Your task to perform on an android device: toggle translation in the chrome app Image 0: 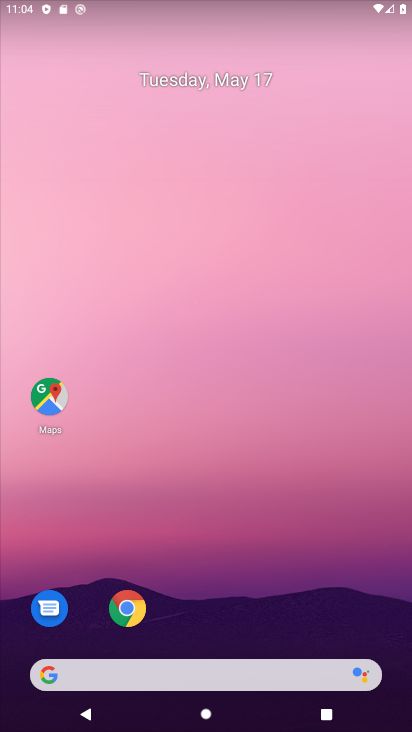
Step 0: click (122, 609)
Your task to perform on an android device: toggle translation in the chrome app Image 1: 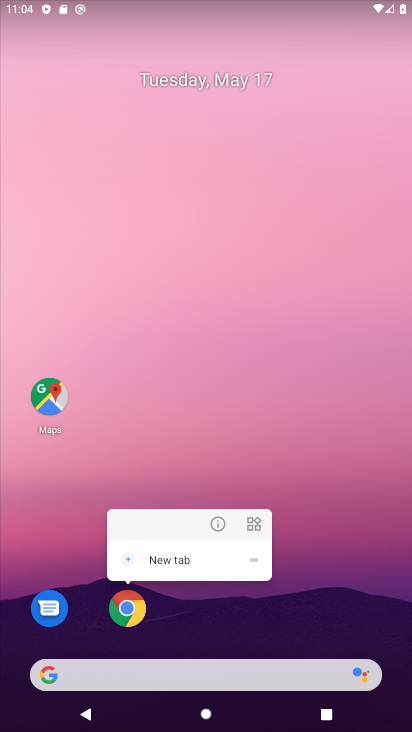
Step 1: click (127, 629)
Your task to perform on an android device: toggle translation in the chrome app Image 2: 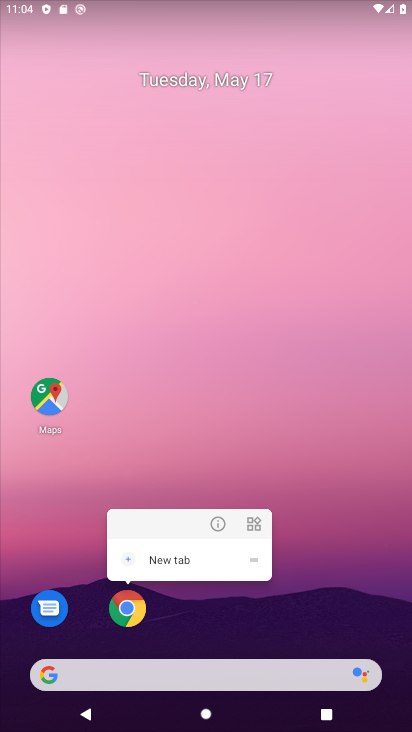
Step 2: click (131, 615)
Your task to perform on an android device: toggle translation in the chrome app Image 3: 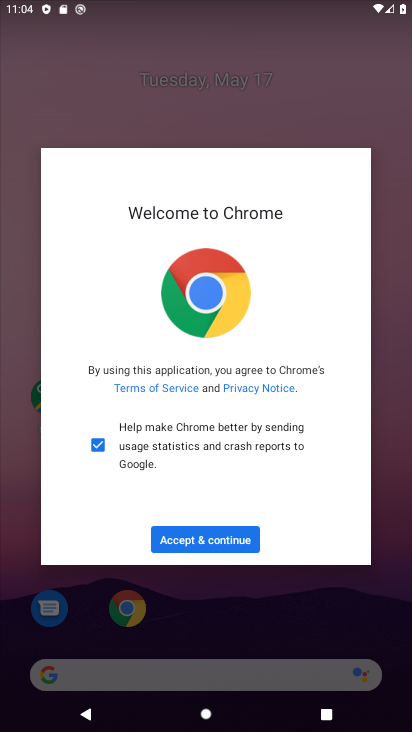
Step 3: click (246, 548)
Your task to perform on an android device: toggle translation in the chrome app Image 4: 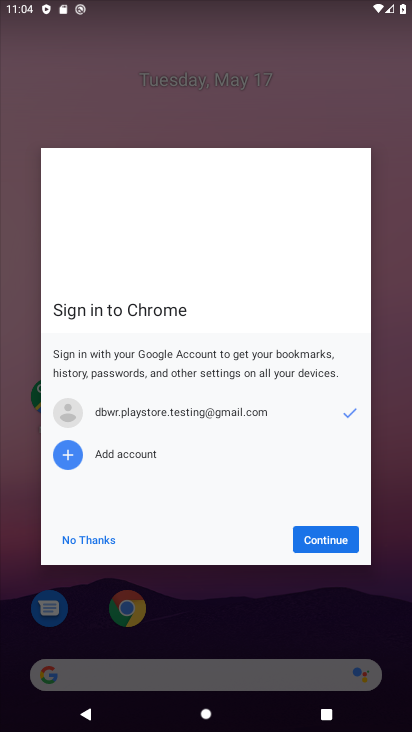
Step 4: click (330, 536)
Your task to perform on an android device: toggle translation in the chrome app Image 5: 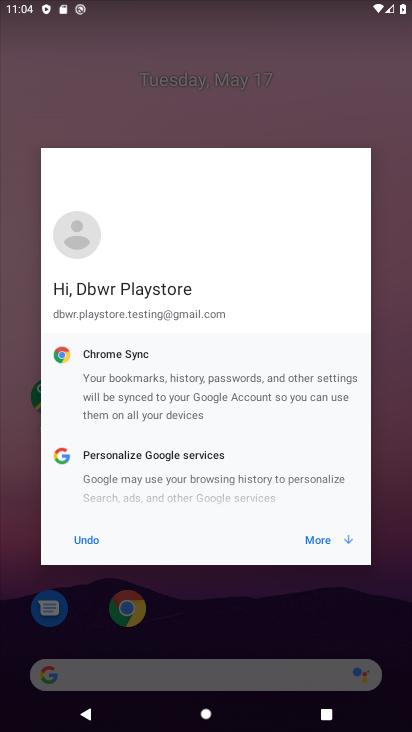
Step 5: click (323, 546)
Your task to perform on an android device: toggle translation in the chrome app Image 6: 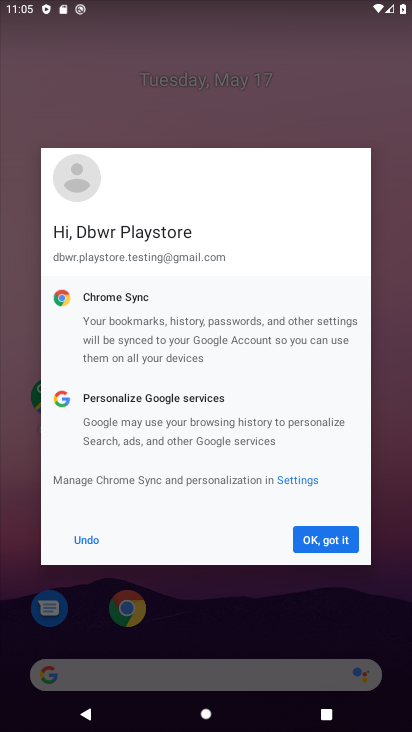
Step 6: click (323, 546)
Your task to perform on an android device: toggle translation in the chrome app Image 7: 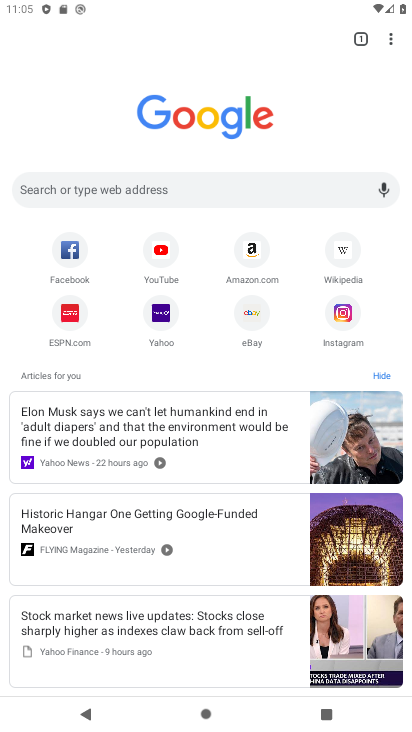
Step 7: drag from (397, 45) to (321, 310)
Your task to perform on an android device: toggle translation in the chrome app Image 8: 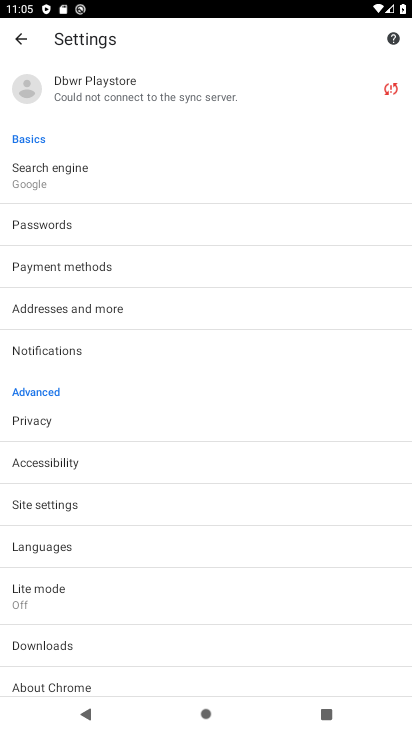
Step 8: drag from (149, 626) to (221, 350)
Your task to perform on an android device: toggle translation in the chrome app Image 9: 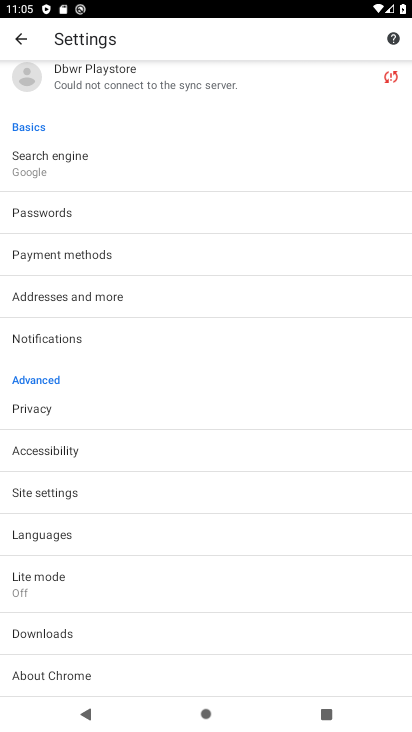
Step 9: click (93, 537)
Your task to perform on an android device: toggle translation in the chrome app Image 10: 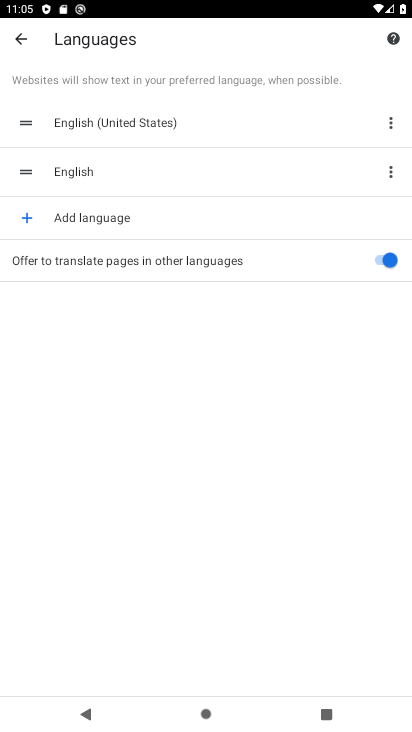
Step 10: click (386, 262)
Your task to perform on an android device: toggle translation in the chrome app Image 11: 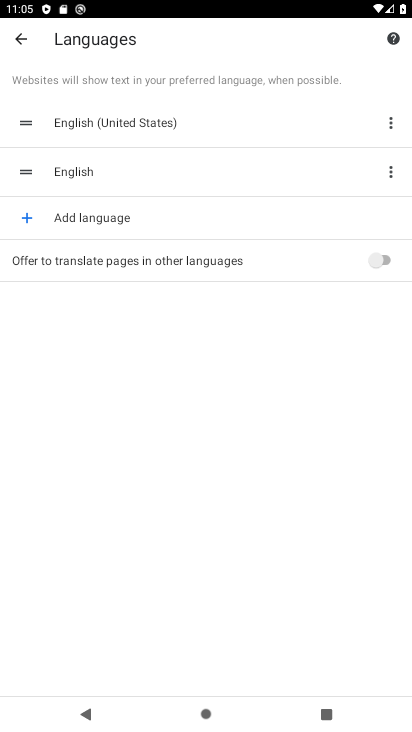
Step 11: task complete